Your task to perform on an android device: Search for pizza restaurants on Maps Image 0: 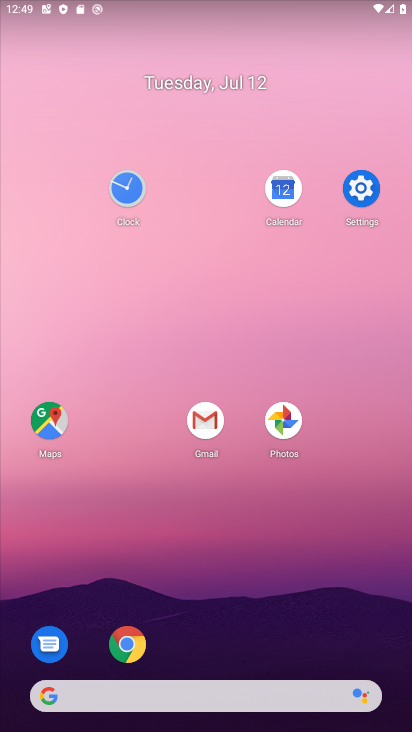
Step 0: click (39, 425)
Your task to perform on an android device: Search for pizza restaurants on Maps Image 1: 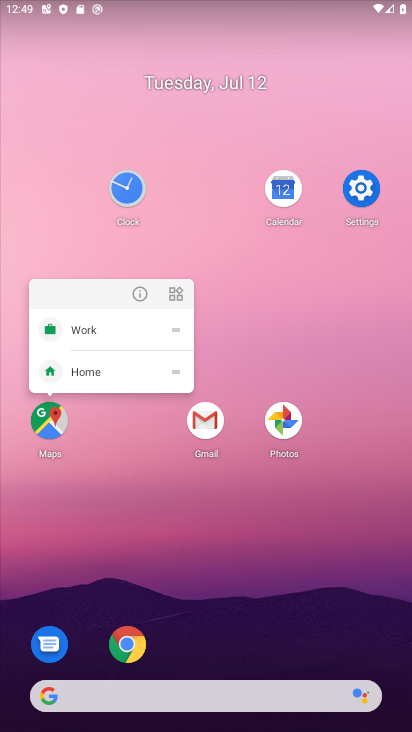
Step 1: click (39, 425)
Your task to perform on an android device: Search for pizza restaurants on Maps Image 2: 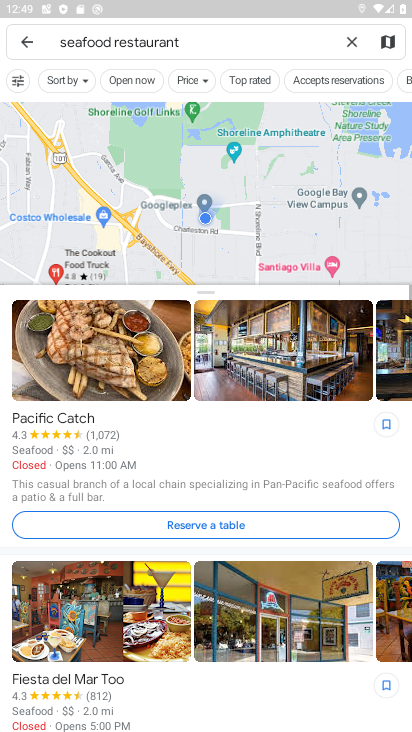
Step 2: click (350, 34)
Your task to perform on an android device: Search for pizza restaurants on Maps Image 3: 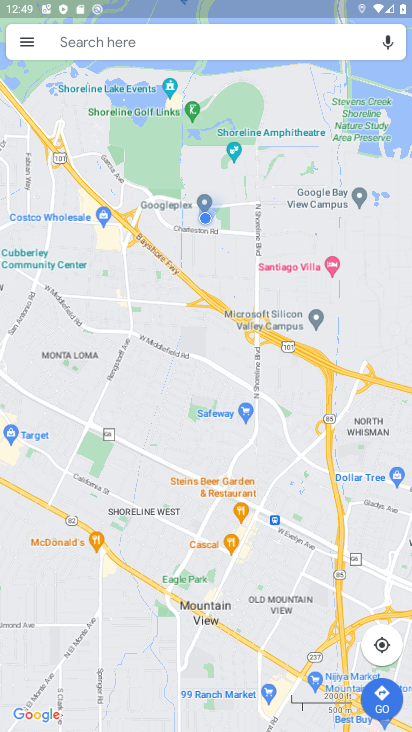
Step 3: click (225, 51)
Your task to perform on an android device: Search for pizza restaurants on Maps Image 4: 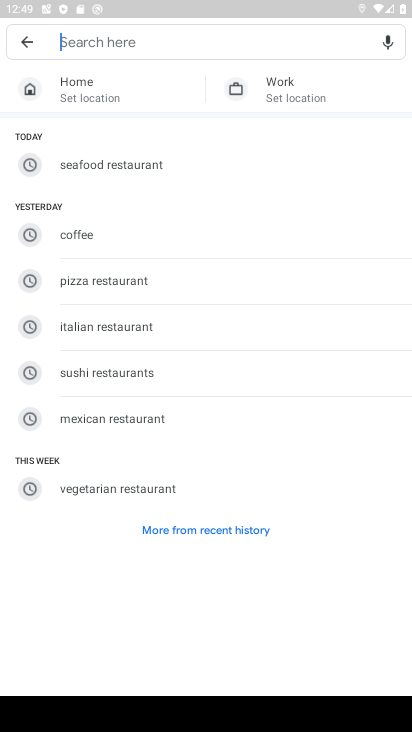
Step 4: type "pizza restaurants"
Your task to perform on an android device: Search for pizza restaurants on Maps Image 5: 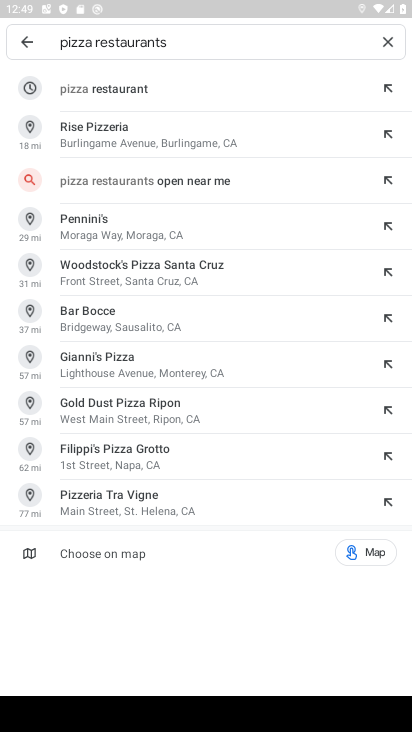
Step 5: click (151, 91)
Your task to perform on an android device: Search for pizza restaurants on Maps Image 6: 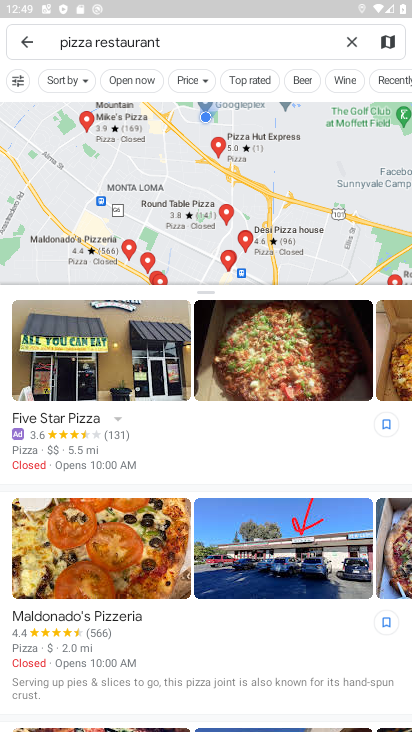
Step 6: task complete